Your task to perform on an android device: all mails in gmail Image 0: 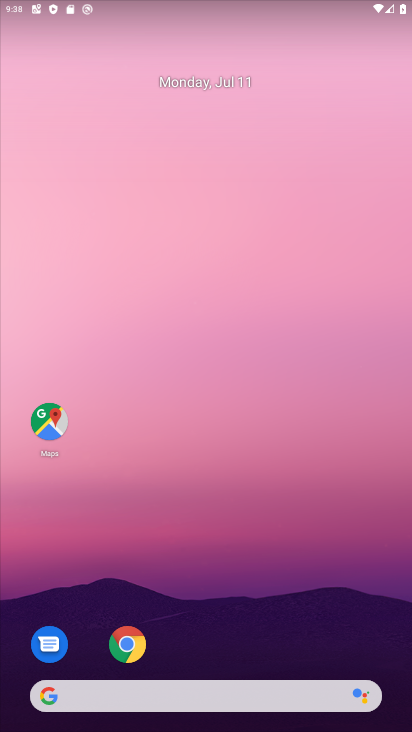
Step 0: drag from (221, 606) to (277, 39)
Your task to perform on an android device: all mails in gmail Image 1: 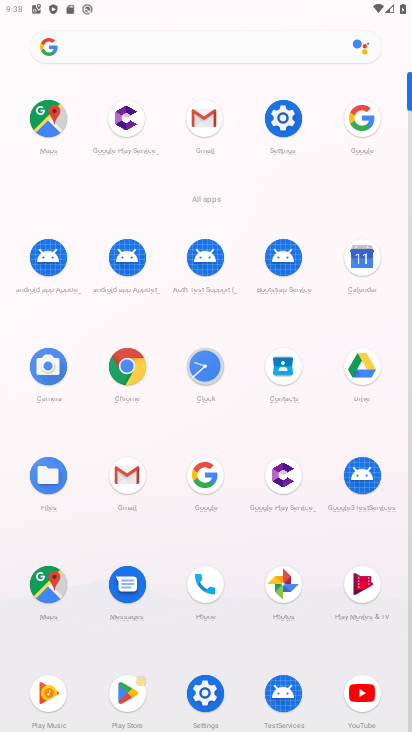
Step 1: click (202, 119)
Your task to perform on an android device: all mails in gmail Image 2: 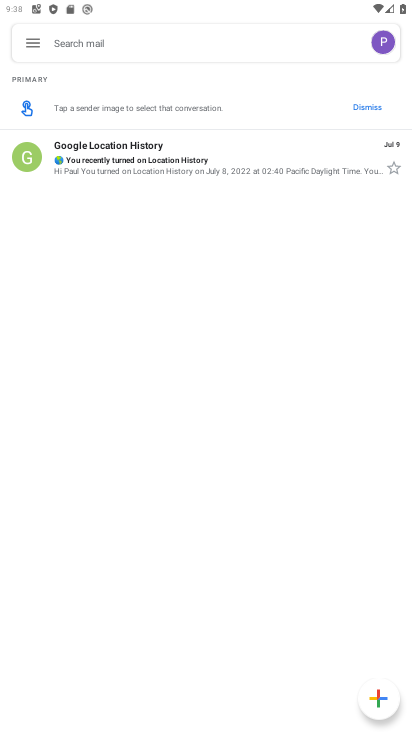
Step 2: click (32, 44)
Your task to perform on an android device: all mails in gmail Image 3: 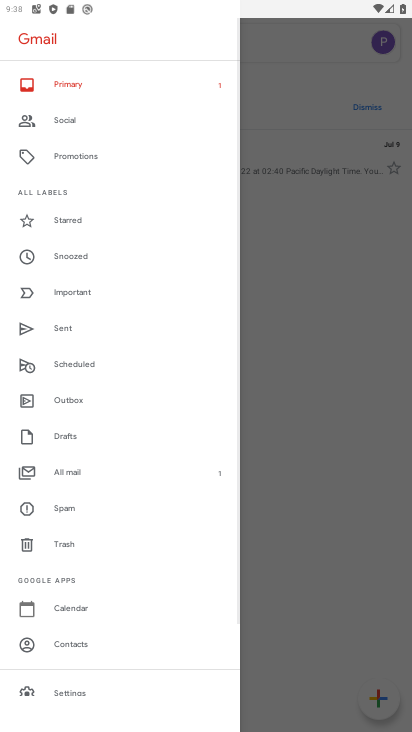
Step 3: click (64, 479)
Your task to perform on an android device: all mails in gmail Image 4: 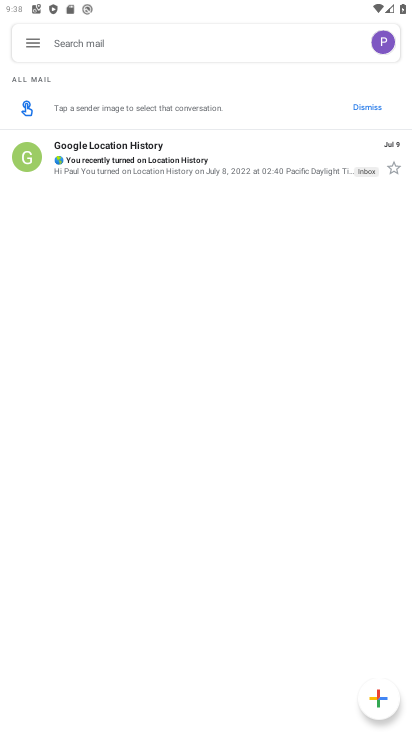
Step 4: task complete